Your task to perform on an android device: Open notification settings Image 0: 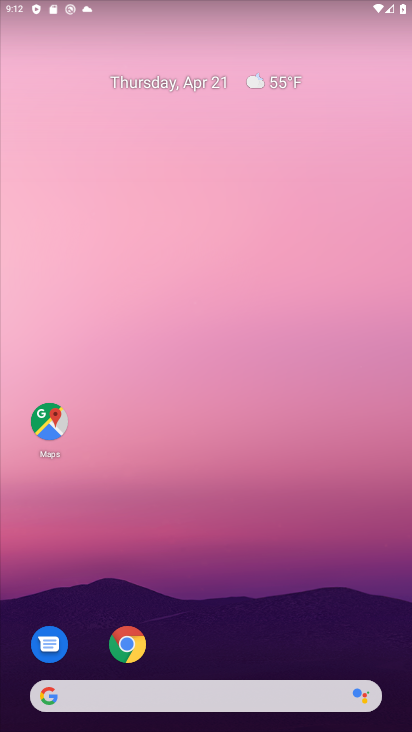
Step 0: drag from (202, 660) to (225, 259)
Your task to perform on an android device: Open notification settings Image 1: 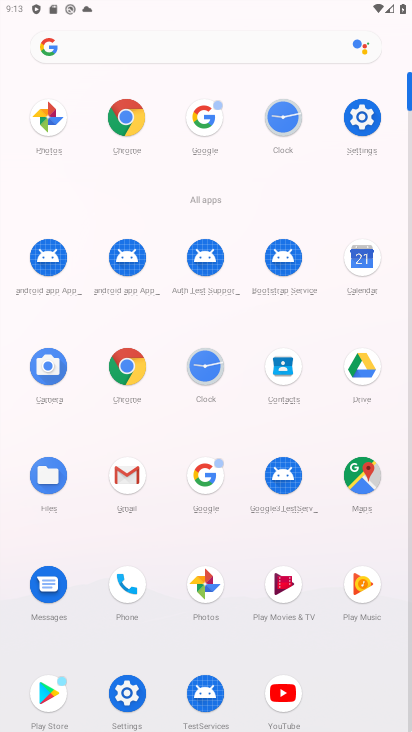
Step 1: click (118, 700)
Your task to perform on an android device: Open notification settings Image 2: 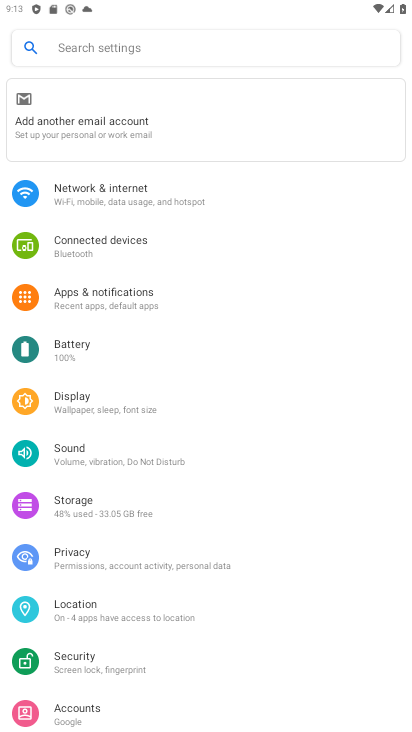
Step 2: click (124, 313)
Your task to perform on an android device: Open notification settings Image 3: 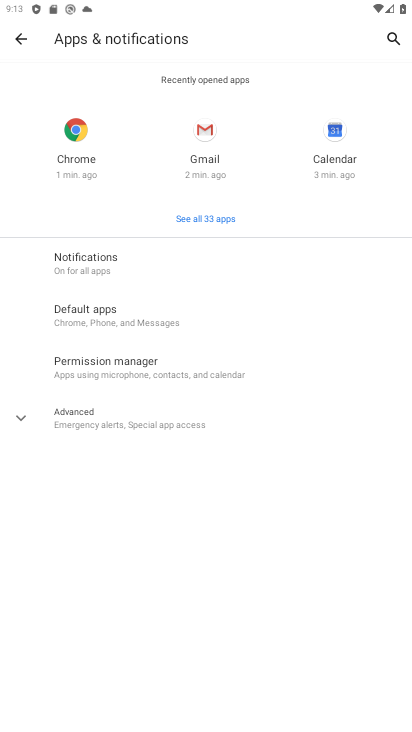
Step 3: task complete